Your task to perform on an android device: Open sound settings Image 0: 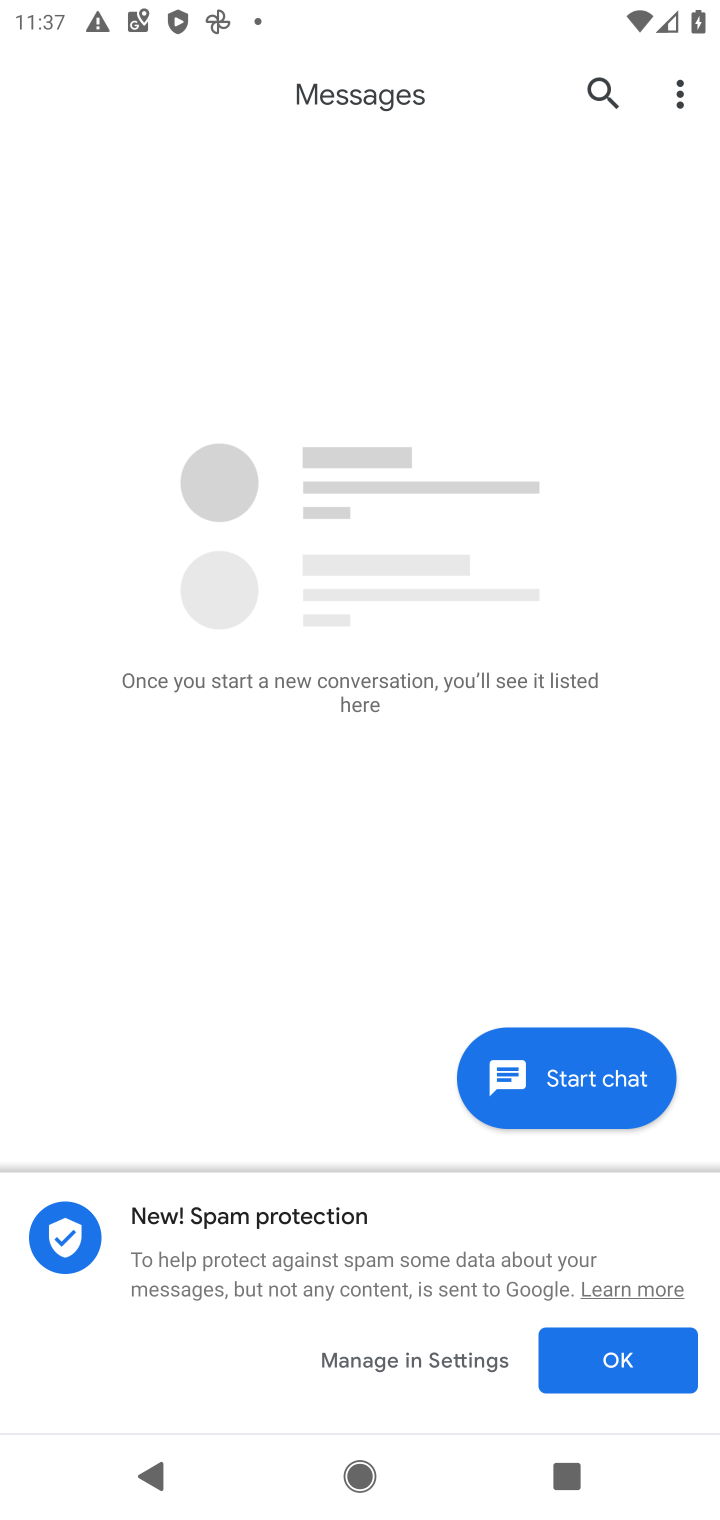
Step 0: press home button
Your task to perform on an android device: Open sound settings Image 1: 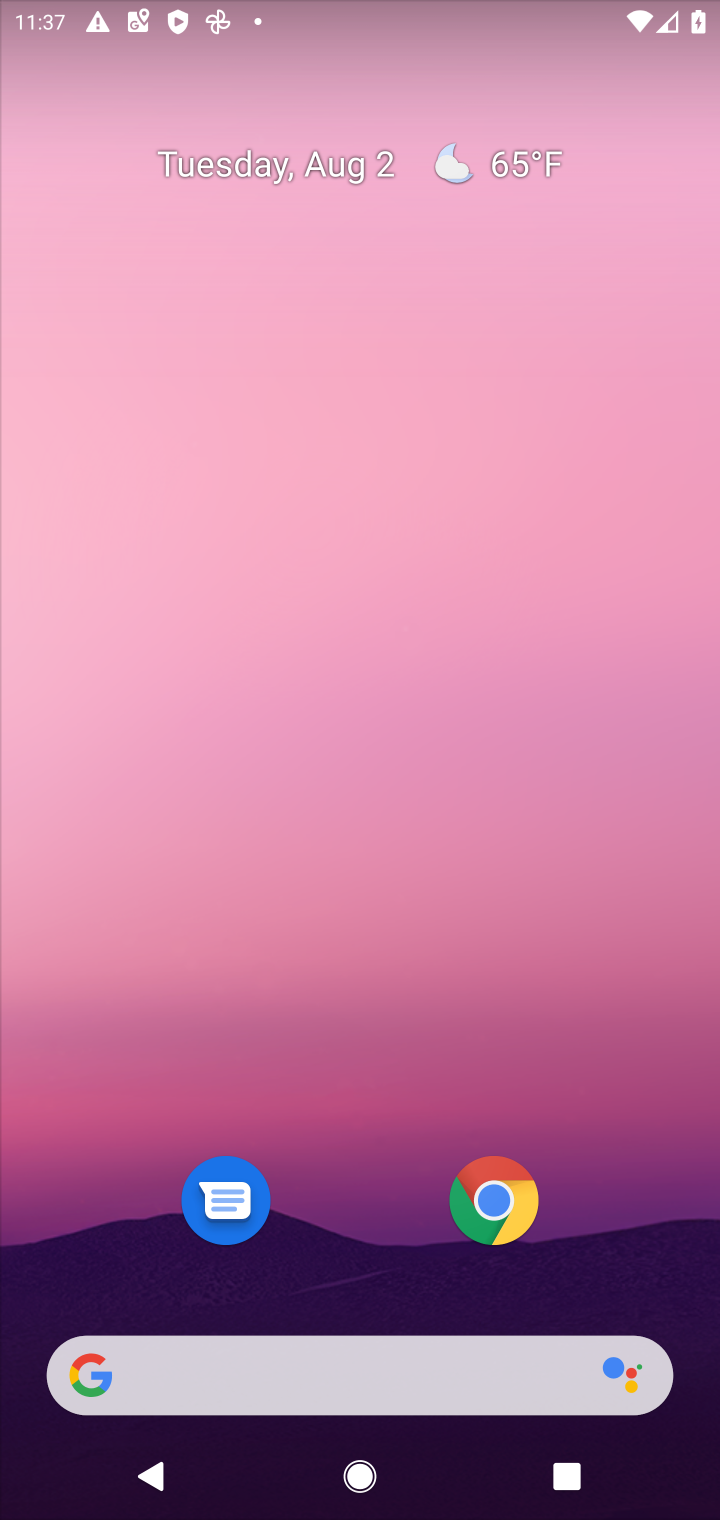
Step 1: drag from (679, 1300) to (554, 451)
Your task to perform on an android device: Open sound settings Image 2: 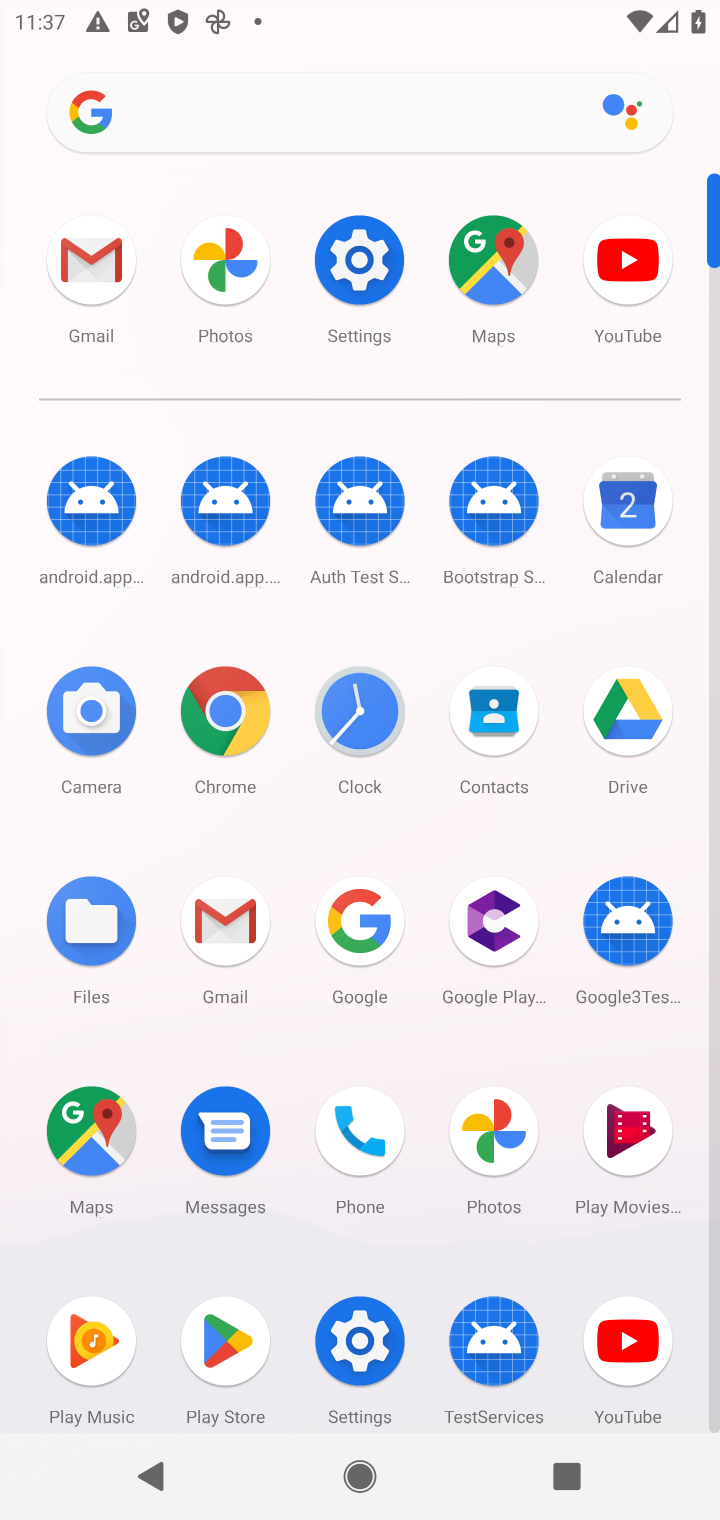
Step 2: click (359, 1341)
Your task to perform on an android device: Open sound settings Image 3: 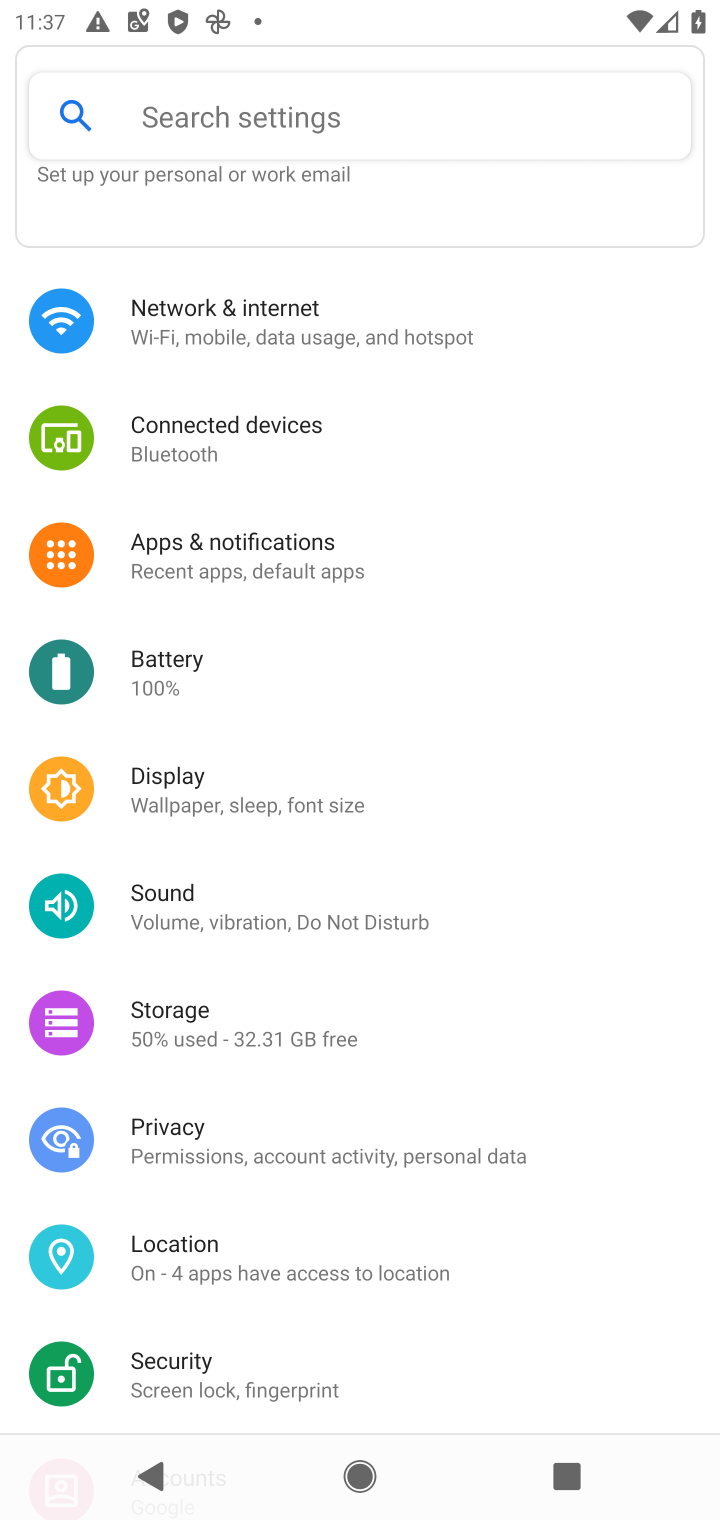
Step 3: click (189, 893)
Your task to perform on an android device: Open sound settings Image 4: 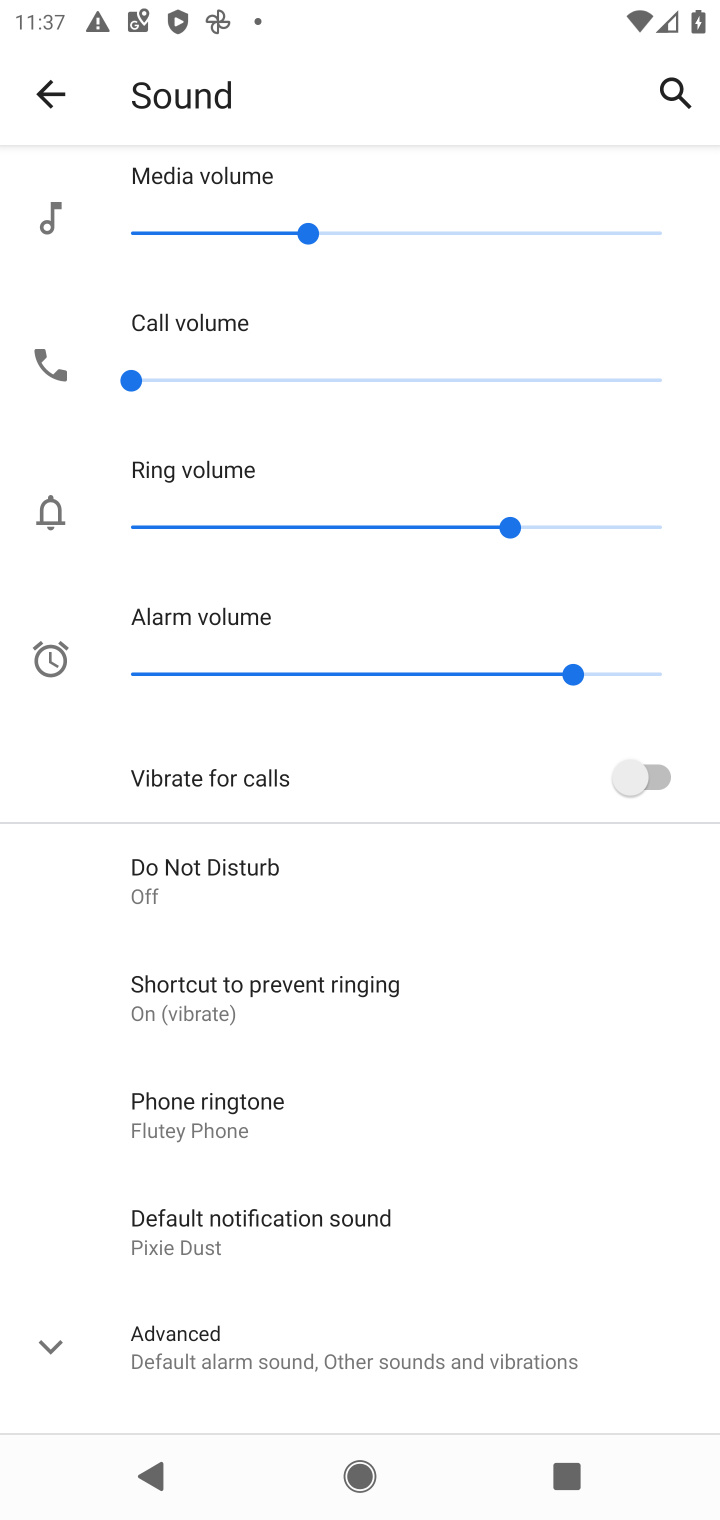
Step 4: drag from (491, 1309) to (462, 704)
Your task to perform on an android device: Open sound settings Image 5: 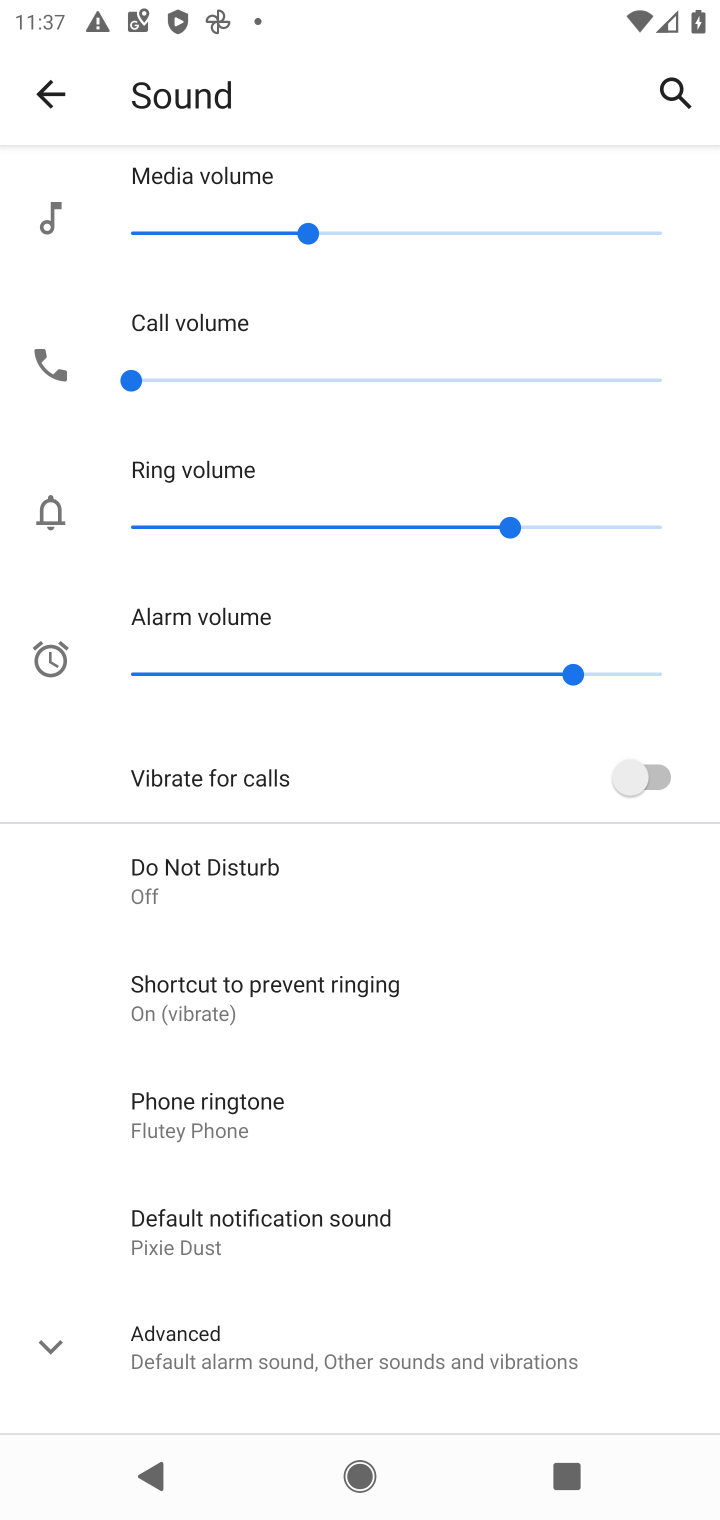
Step 5: click (48, 1344)
Your task to perform on an android device: Open sound settings Image 6: 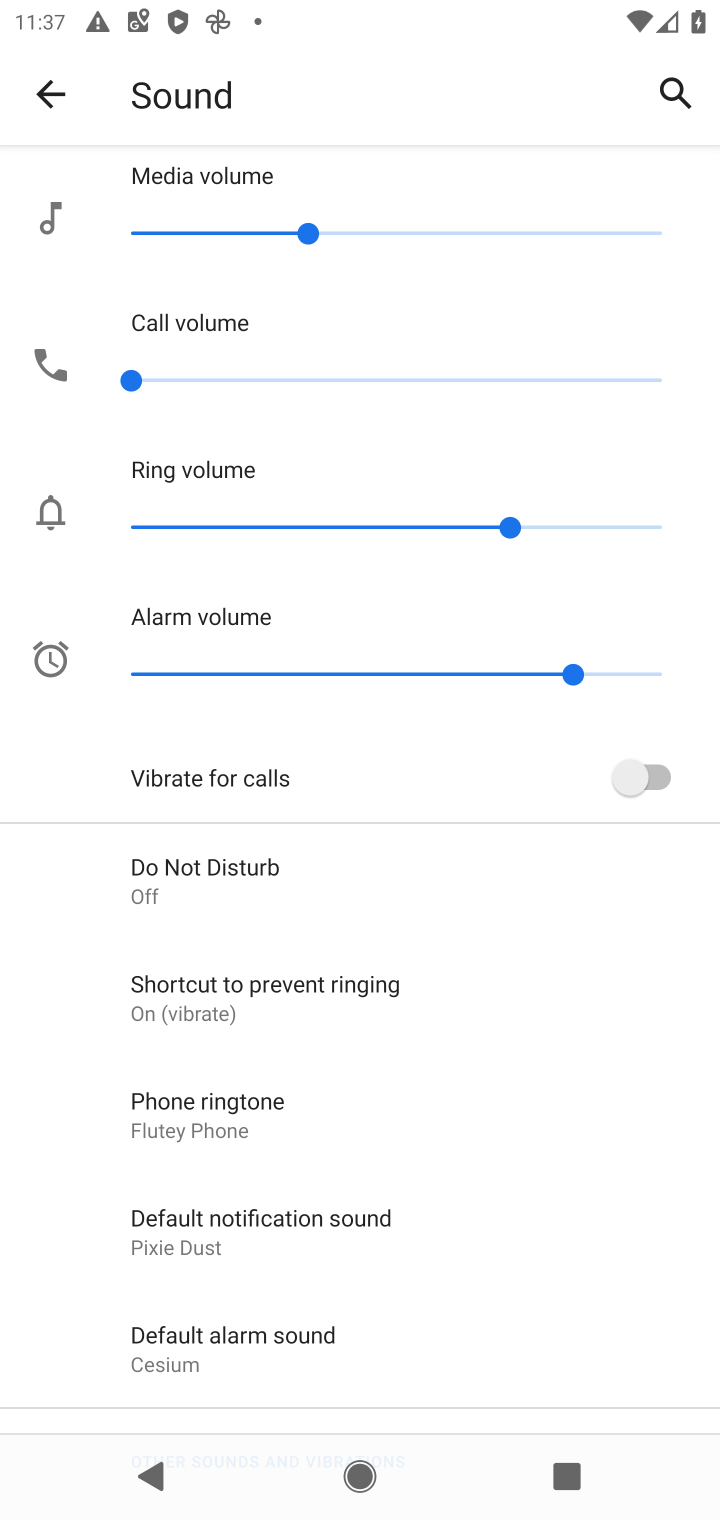
Step 6: task complete